Your task to perform on an android device: Go to sound settings Image 0: 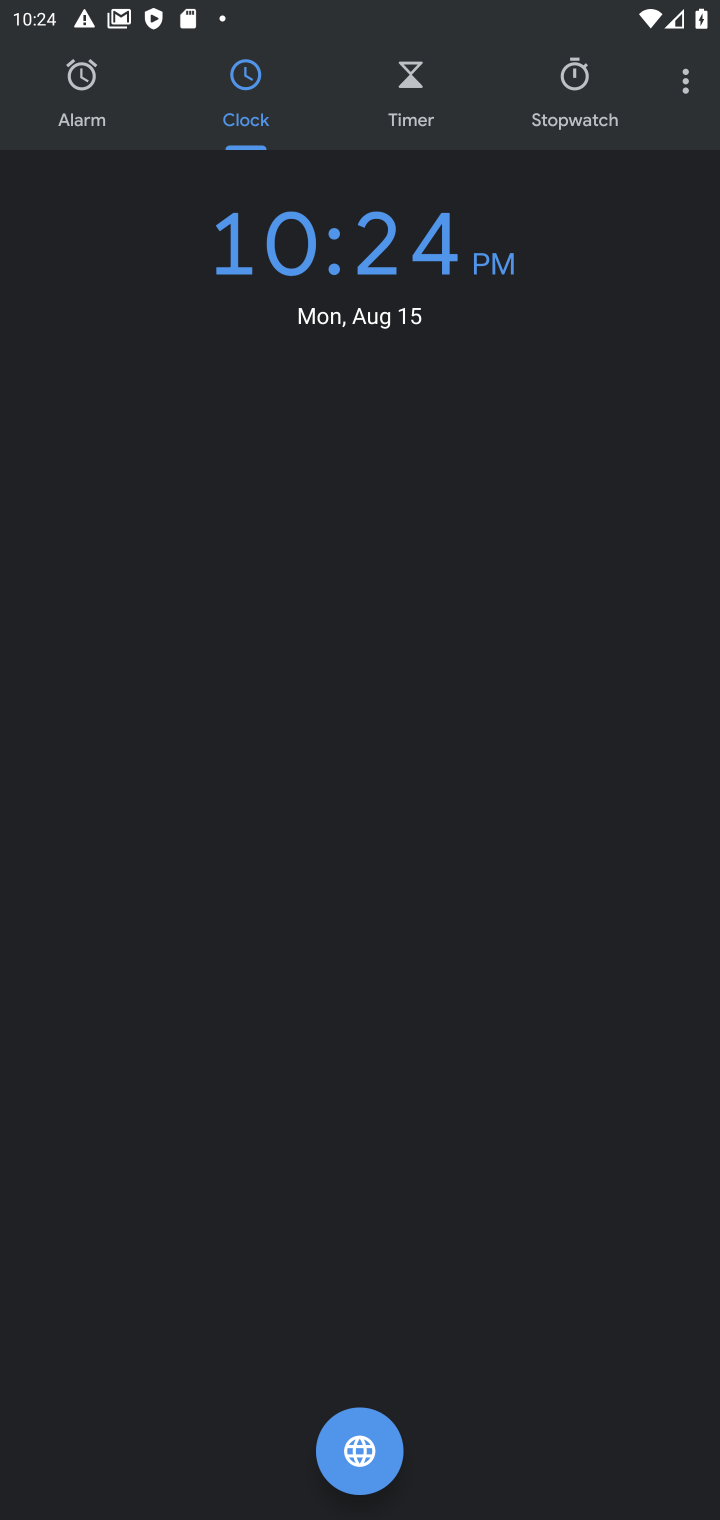
Step 0: press home button
Your task to perform on an android device: Go to sound settings Image 1: 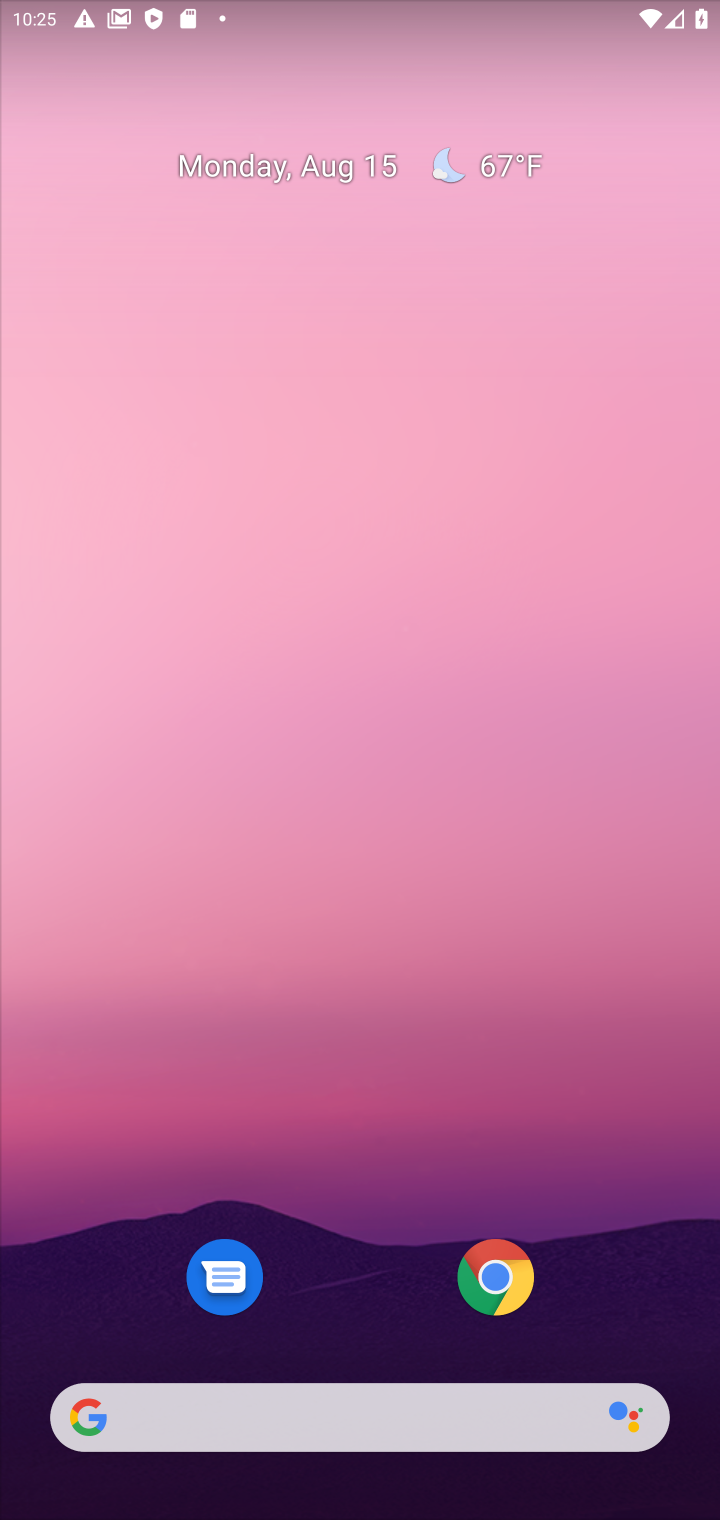
Step 1: drag from (341, 1408) to (304, 315)
Your task to perform on an android device: Go to sound settings Image 2: 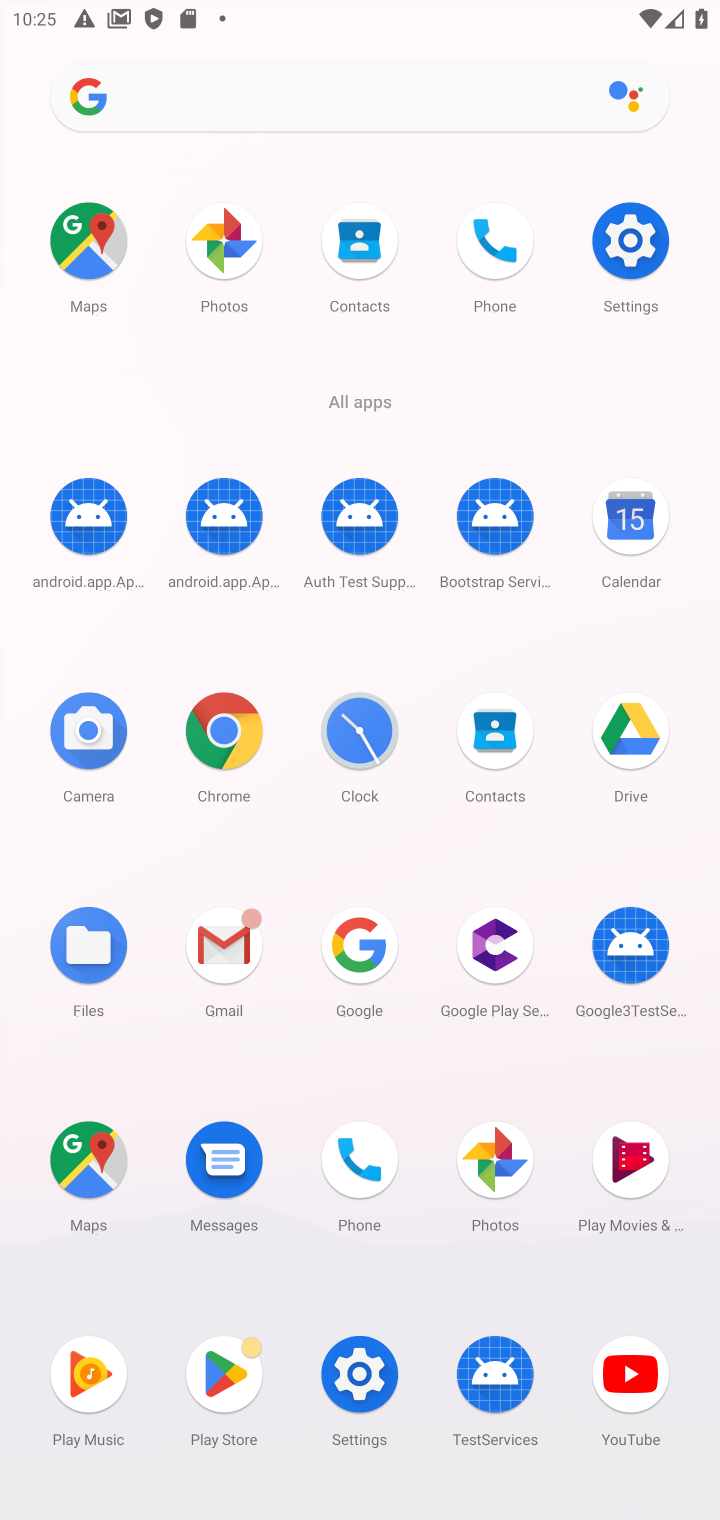
Step 2: click (623, 253)
Your task to perform on an android device: Go to sound settings Image 3: 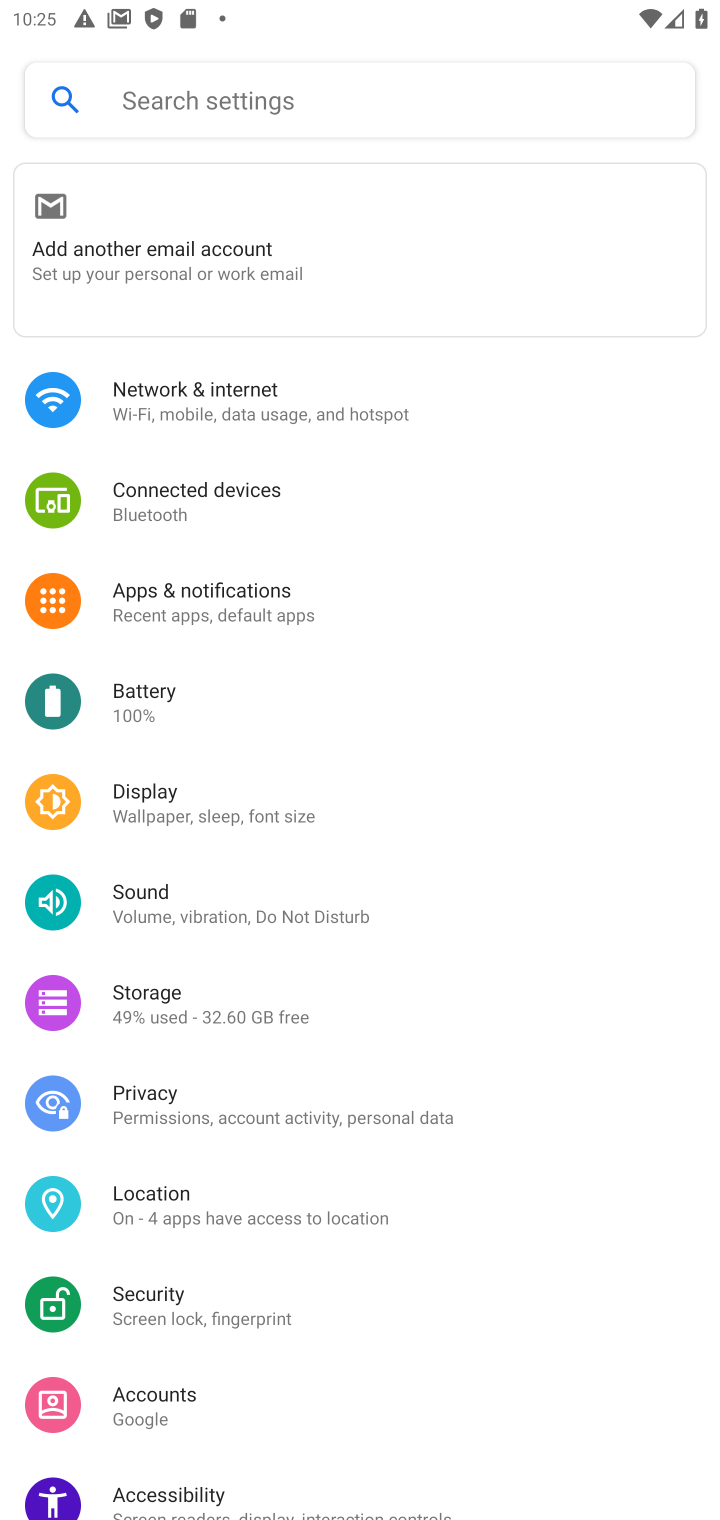
Step 3: click (171, 900)
Your task to perform on an android device: Go to sound settings Image 4: 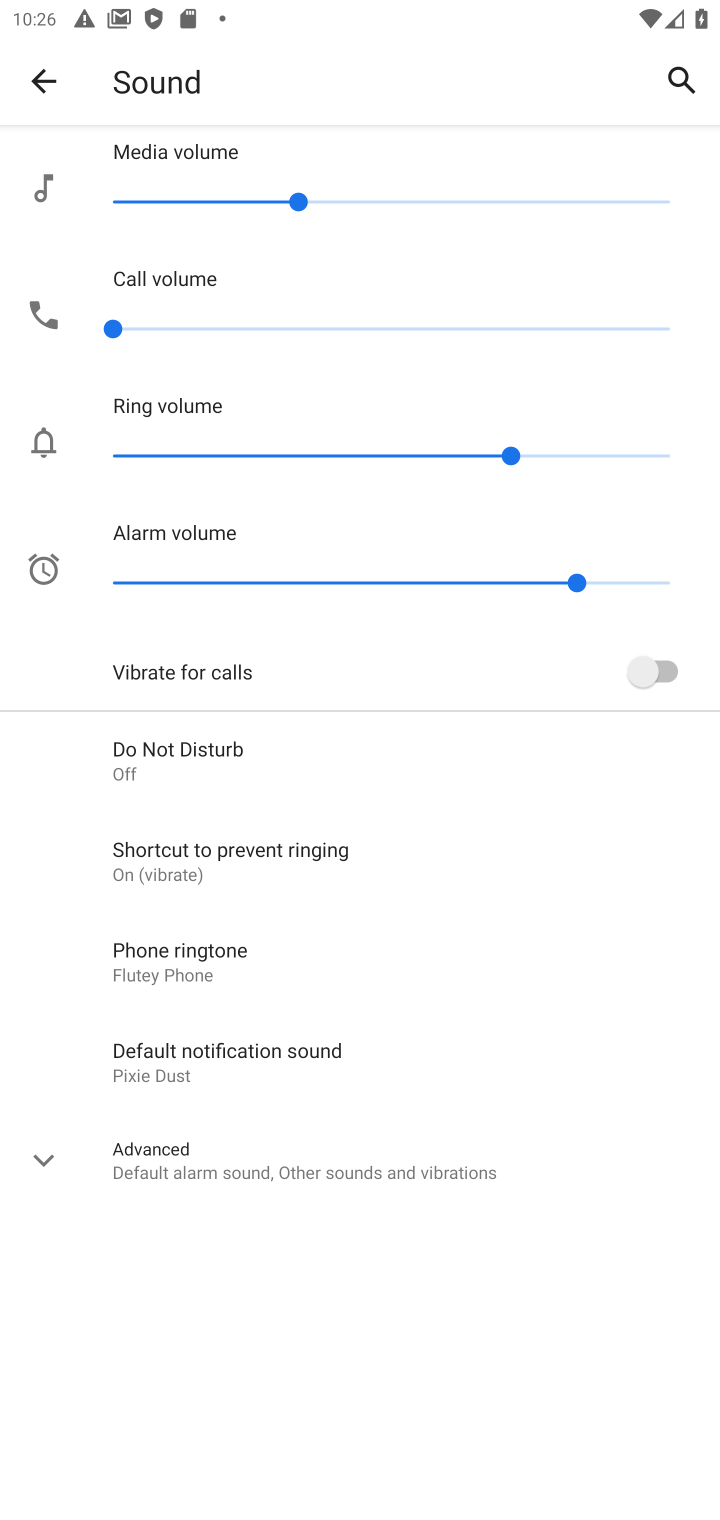
Step 4: task complete